Your task to perform on an android device: check android version Image 0: 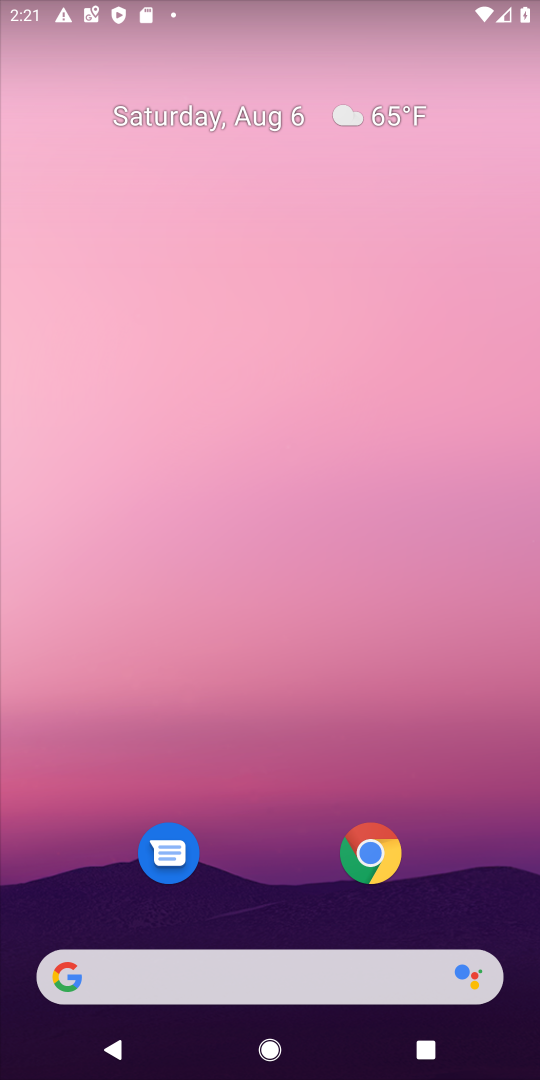
Step 0: drag from (281, 860) to (313, 29)
Your task to perform on an android device: check android version Image 1: 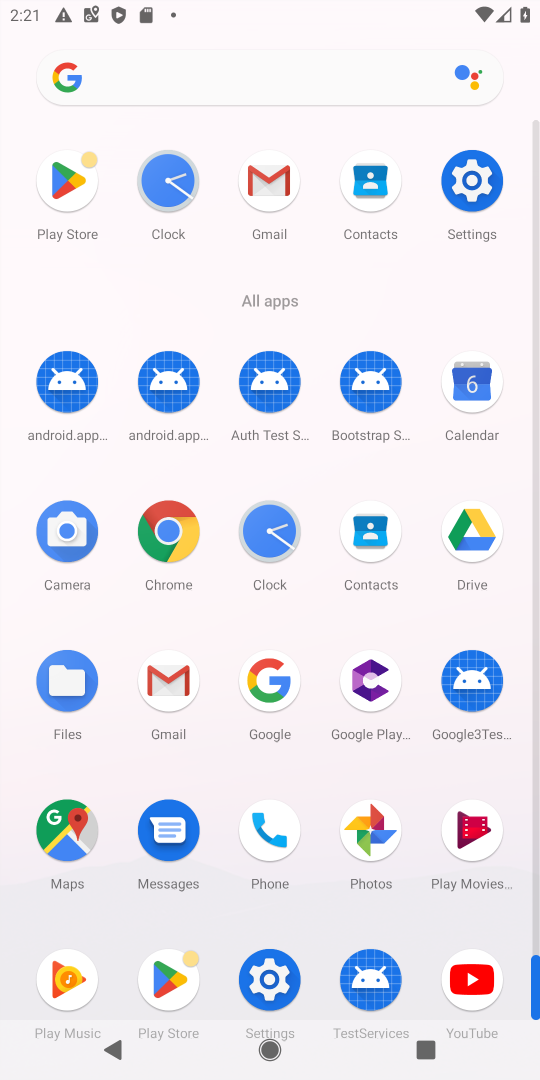
Step 1: click (459, 181)
Your task to perform on an android device: check android version Image 2: 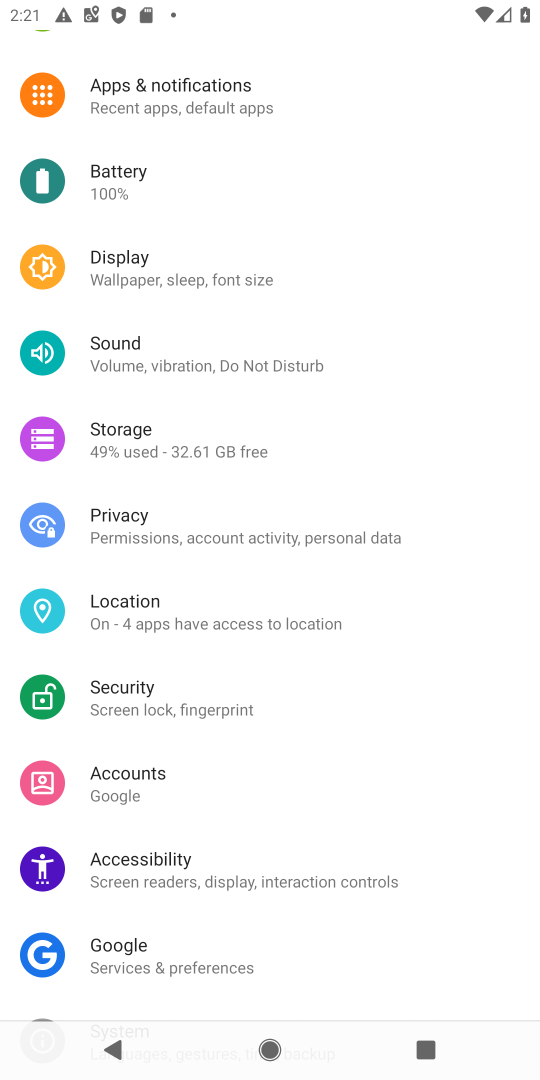
Step 2: drag from (159, 975) to (237, 74)
Your task to perform on an android device: check android version Image 3: 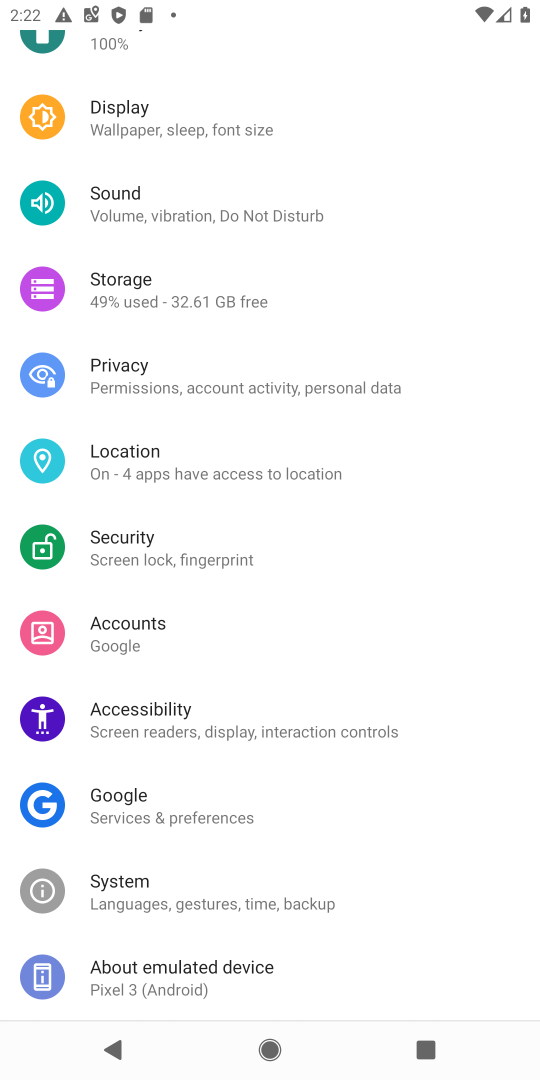
Step 3: drag from (251, 994) to (350, 18)
Your task to perform on an android device: check android version Image 4: 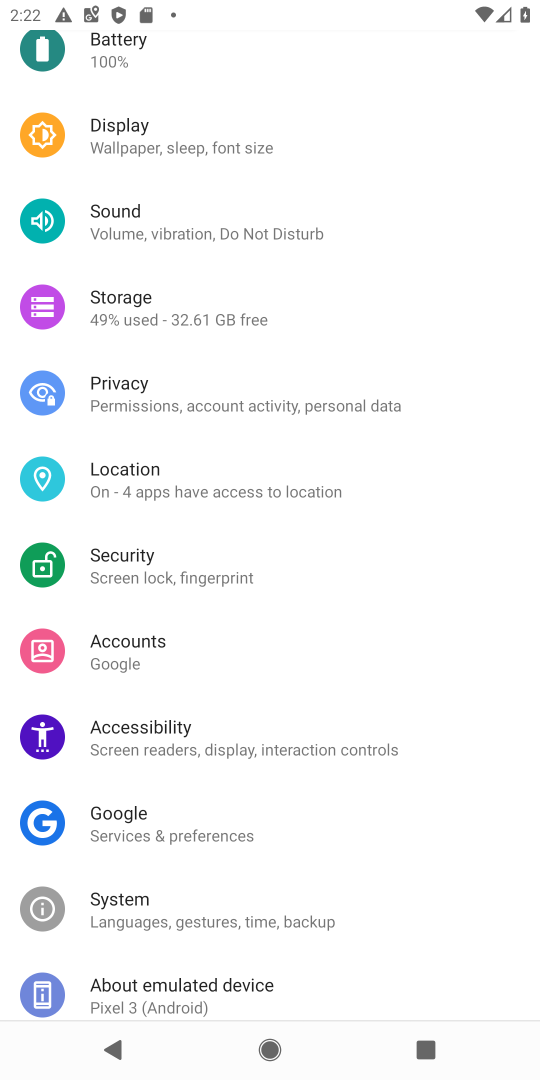
Step 4: click (205, 982)
Your task to perform on an android device: check android version Image 5: 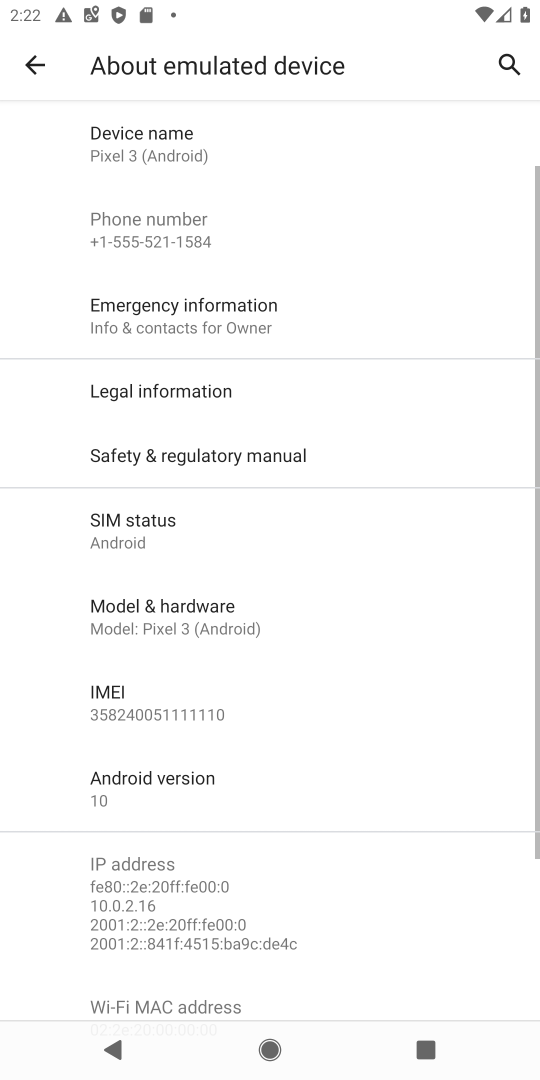
Step 5: click (105, 773)
Your task to perform on an android device: check android version Image 6: 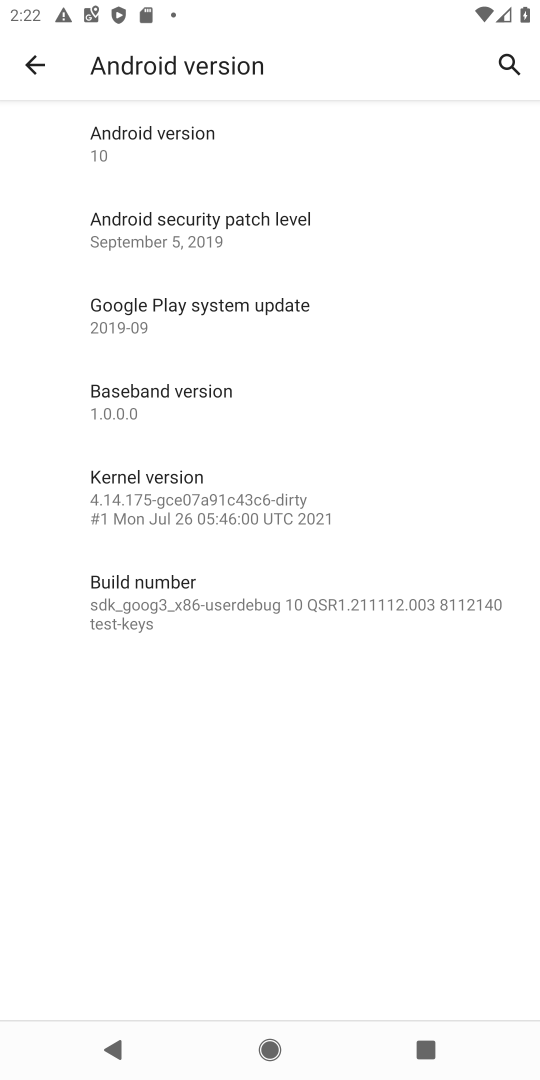
Step 6: task complete